Your task to perform on an android device: allow cookies in the chrome app Image 0: 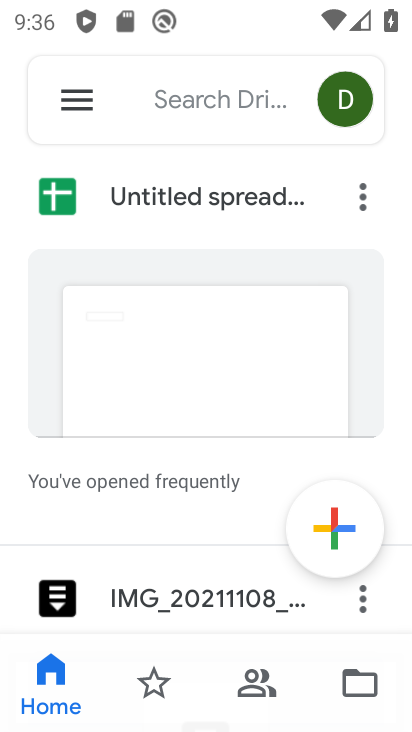
Step 0: press home button
Your task to perform on an android device: allow cookies in the chrome app Image 1: 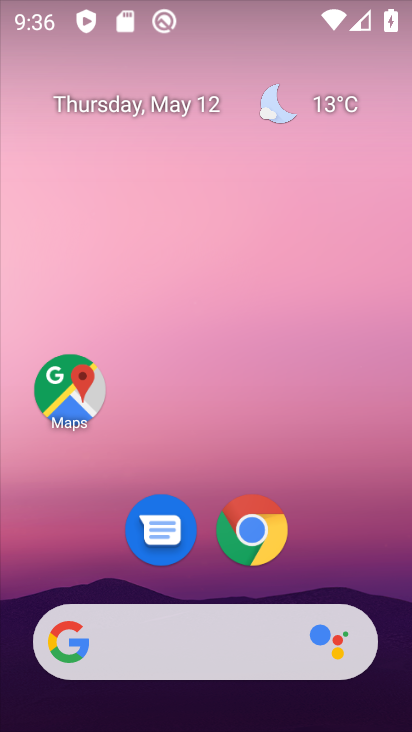
Step 1: click (257, 528)
Your task to perform on an android device: allow cookies in the chrome app Image 2: 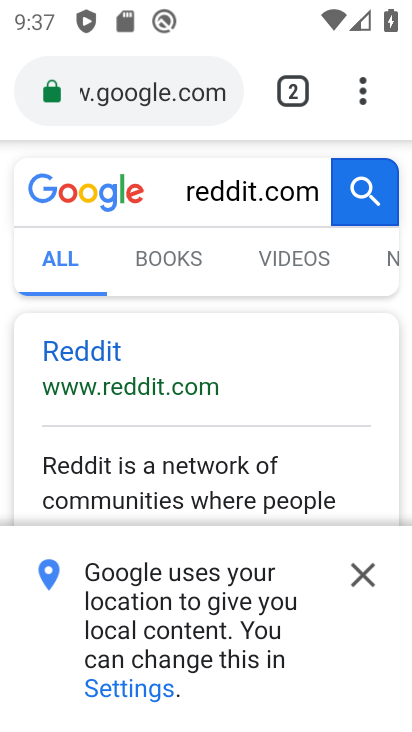
Step 2: click (366, 90)
Your task to perform on an android device: allow cookies in the chrome app Image 3: 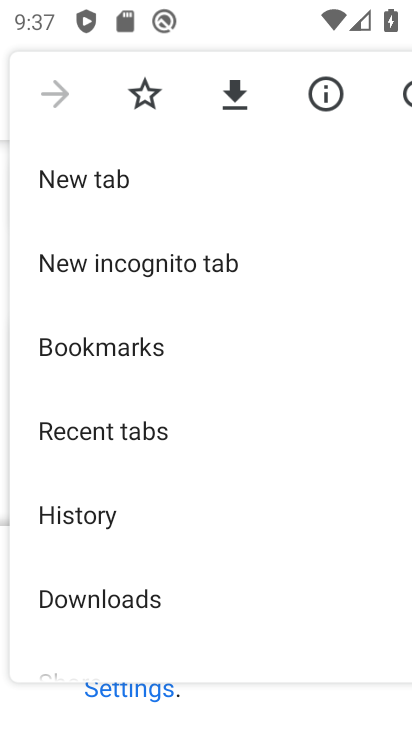
Step 3: drag from (193, 574) to (188, 214)
Your task to perform on an android device: allow cookies in the chrome app Image 4: 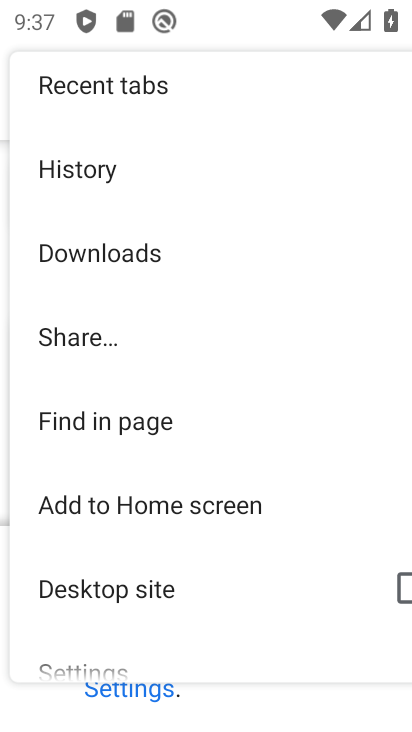
Step 4: drag from (196, 627) to (239, 335)
Your task to perform on an android device: allow cookies in the chrome app Image 5: 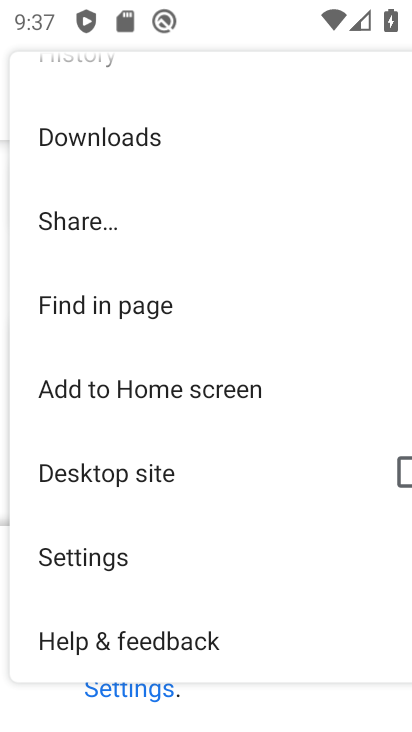
Step 5: click (111, 556)
Your task to perform on an android device: allow cookies in the chrome app Image 6: 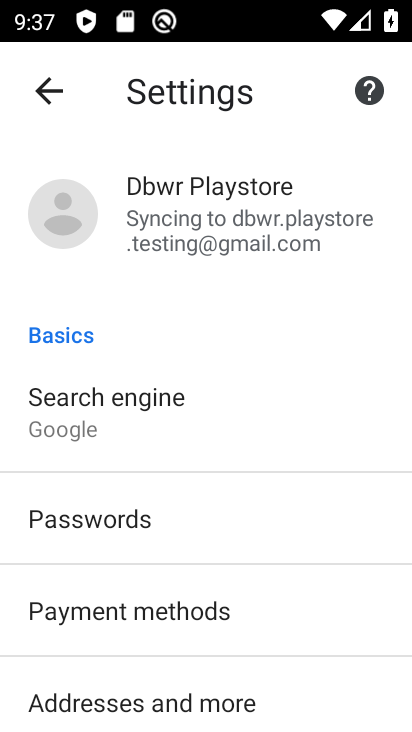
Step 6: drag from (200, 629) to (242, 289)
Your task to perform on an android device: allow cookies in the chrome app Image 7: 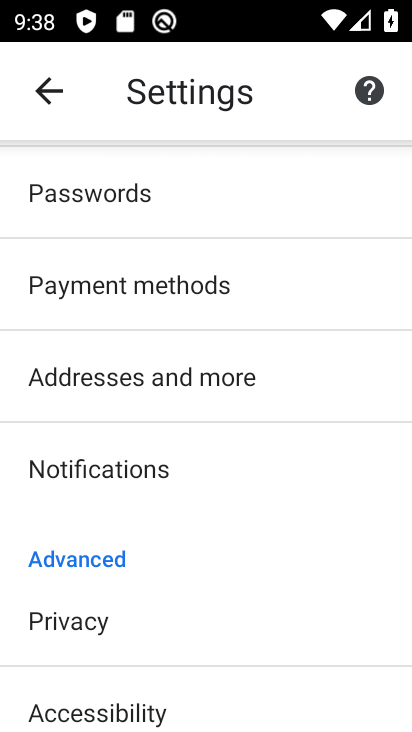
Step 7: drag from (242, 630) to (266, 223)
Your task to perform on an android device: allow cookies in the chrome app Image 8: 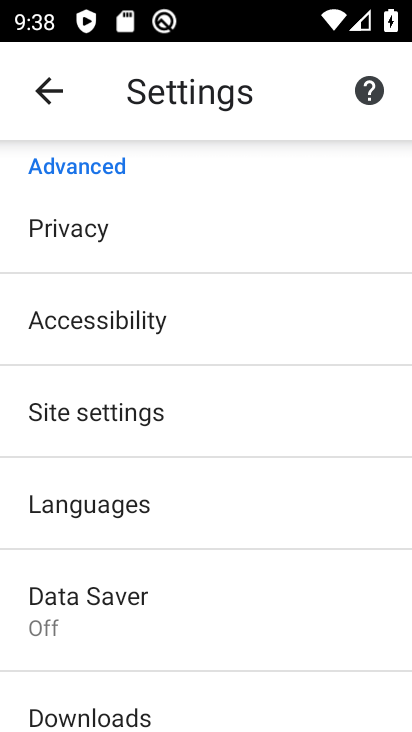
Step 8: click (185, 421)
Your task to perform on an android device: allow cookies in the chrome app Image 9: 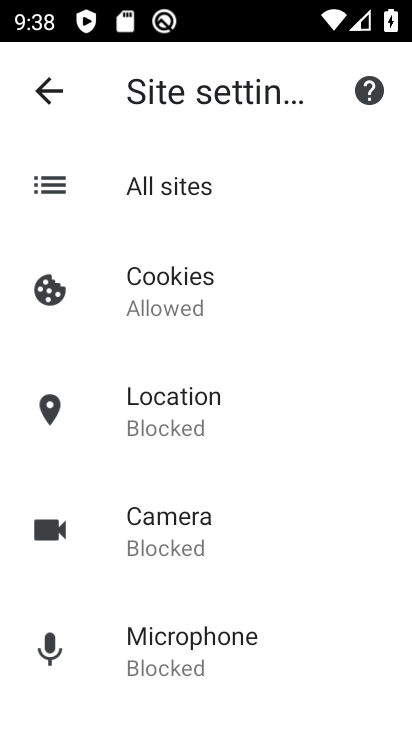
Step 9: click (187, 283)
Your task to perform on an android device: allow cookies in the chrome app Image 10: 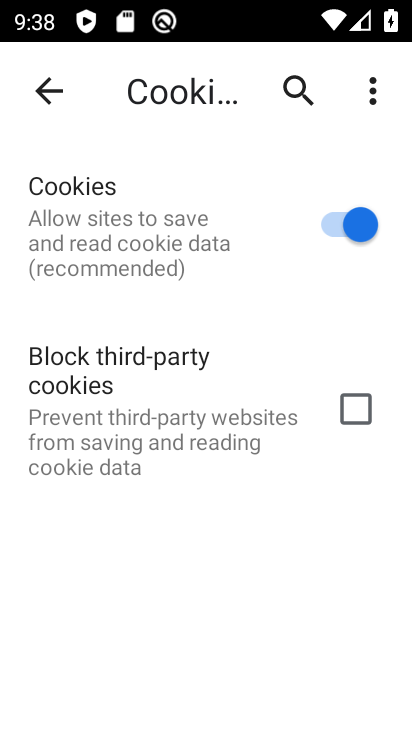
Step 10: task complete